Your task to perform on an android device: What is the recent news? Image 0: 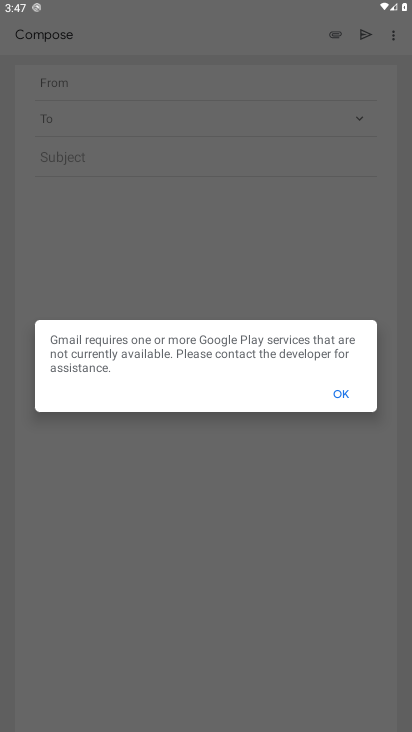
Step 0: press home button
Your task to perform on an android device: What is the recent news? Image 1: 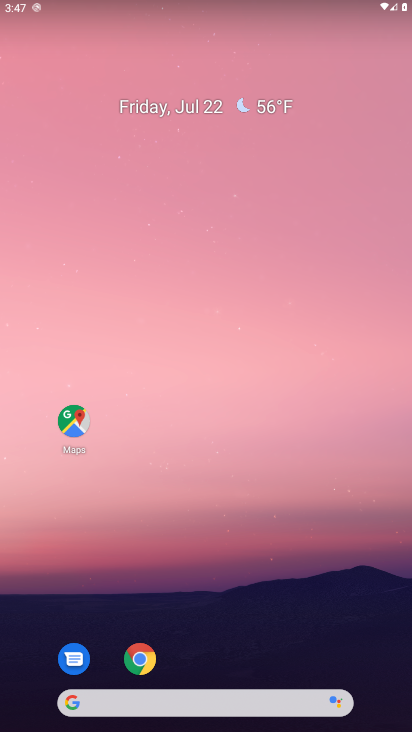
Step 1: drag from (216, 709) to (246, 313)
Your task to perform on an android device: What is the recent news? Image 2: 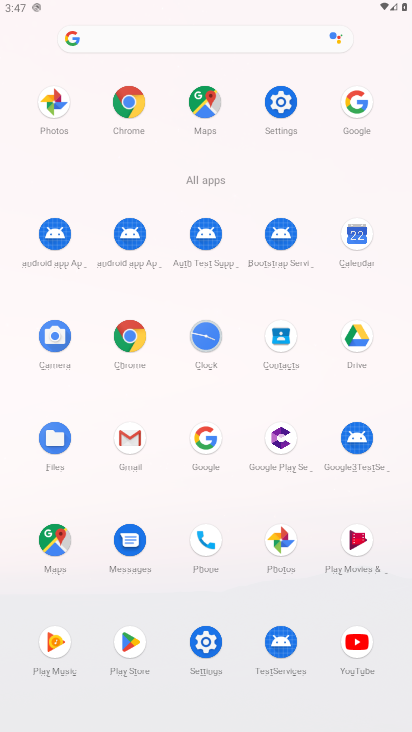
Step 2: click (202, 432)
Your task to perform on an android device: What is the recent news? Image 3: 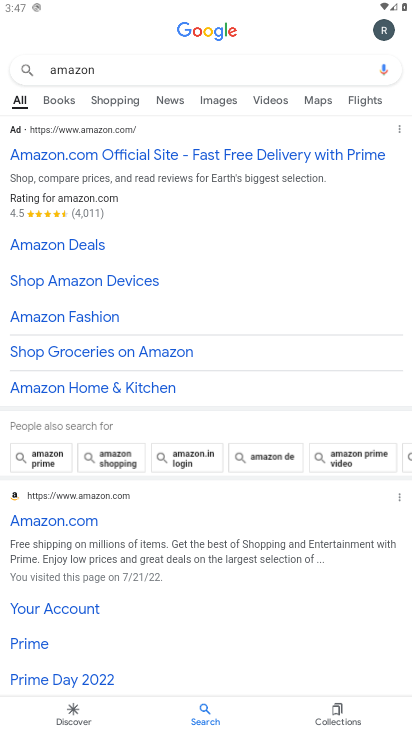
Step 3: click (106, 65)
Your task to perform on an android device: What is the recent news? Image 4: 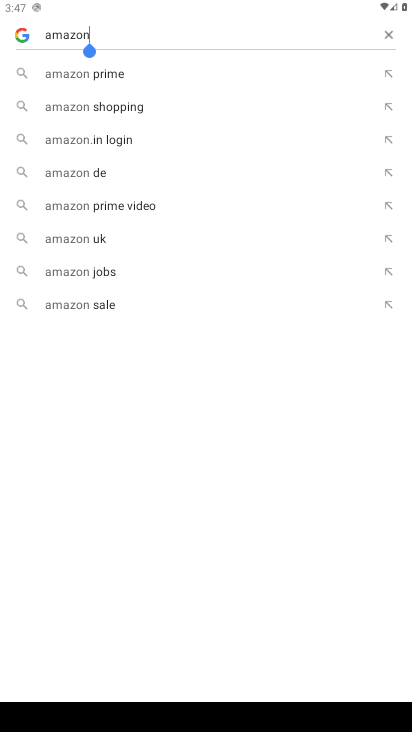
Step 4: click (392, 36)
Your task to perform on an android device: What is the recent news? Image 5: 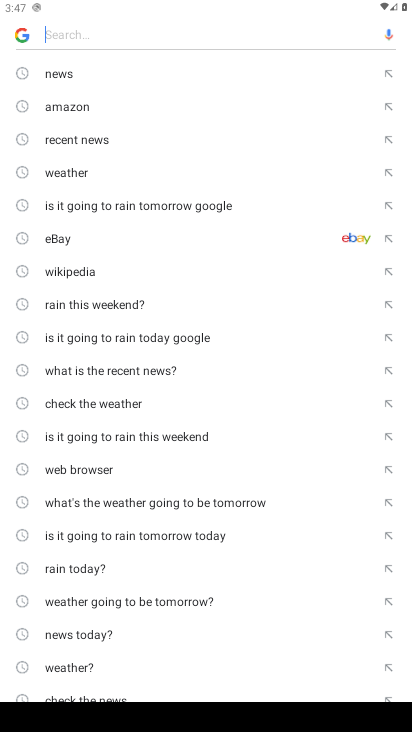
Step 5: click (98, 136)
Your task to perform on an android device: What is the recent news? Image 6: 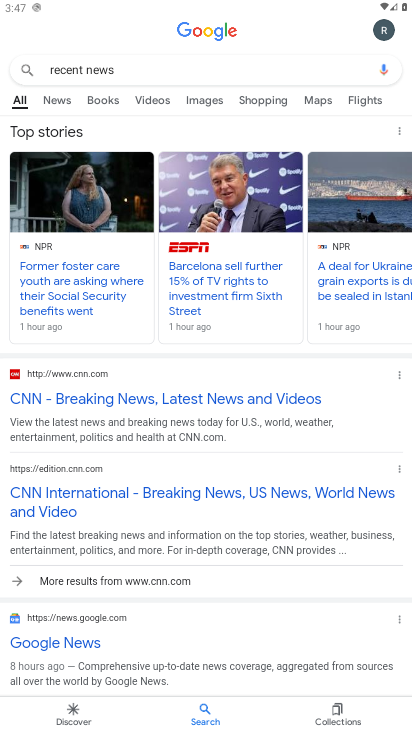
Step 6: task complete